Your task to perform on an android device: turn off airplane mode Image 0: 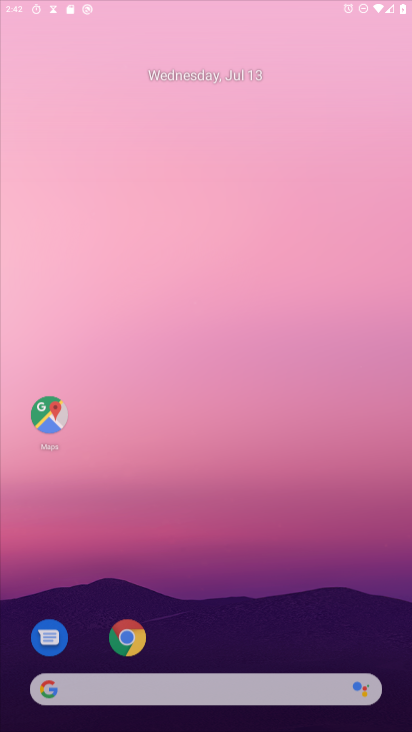
Step 0: press home button
Your task to perform on an android device: turn off airplane mode Image 1: 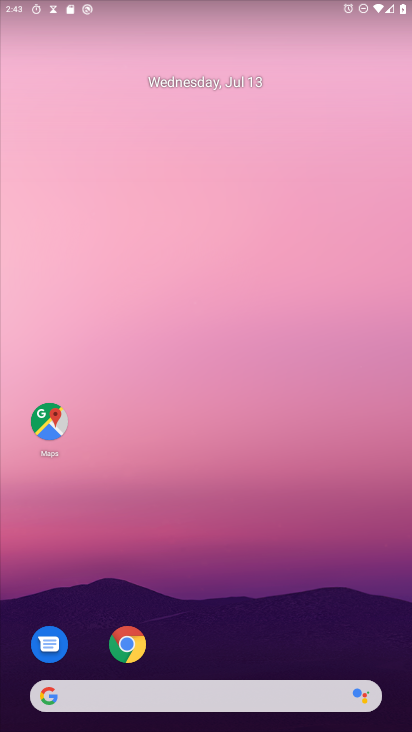
Step 1: task complete